Your task to perform on an android device: visit the assistant section in the google photos Image 0: 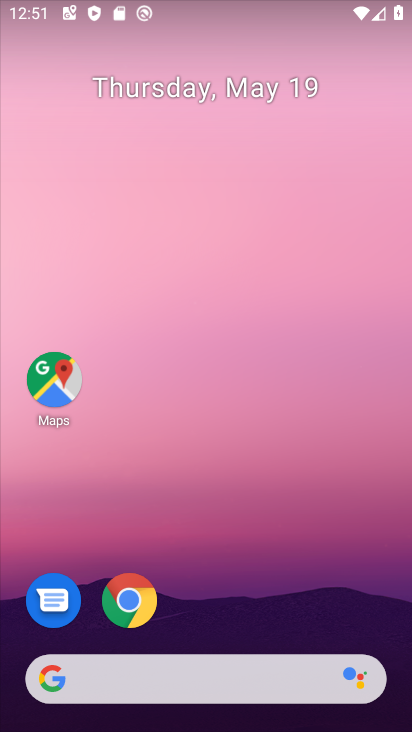
Step 0: drag from (229, 629) to (301, 186)
Your task to perform on an android device: visit the assistant section in the google photos Image 1: 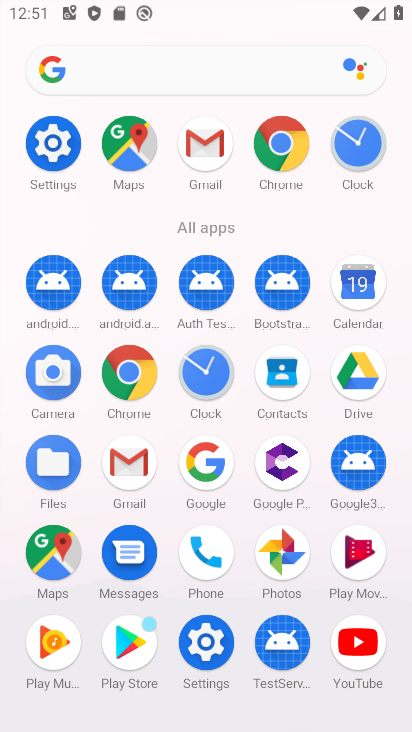
Step 1: click (285, 528)
Your task to perform on an android device: visit the assistant section in the google photos Image 2: 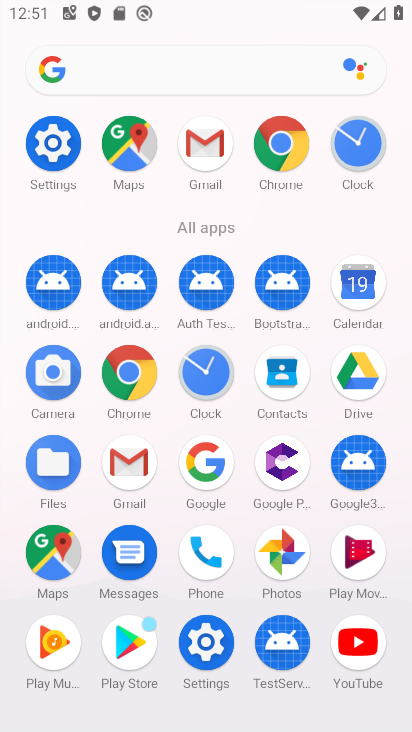
Step 2: click (285, 528)
Your task to perform on an android device: visit the assistant section in the google photos Image 3: 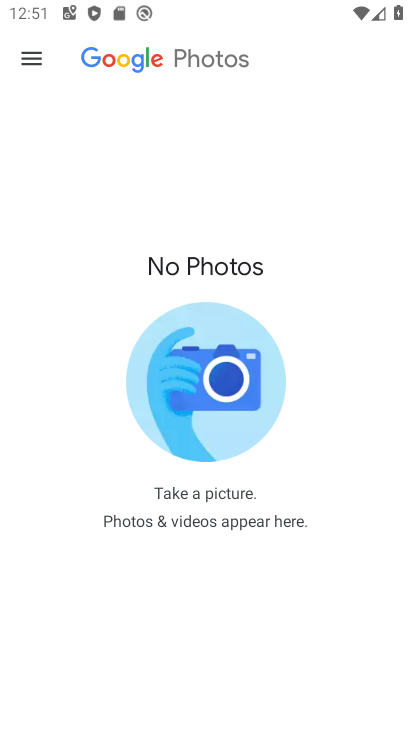
Step 3: click (32, 75)
Your task to perform on an android device: visit the assistant section in the google photos Image 4: 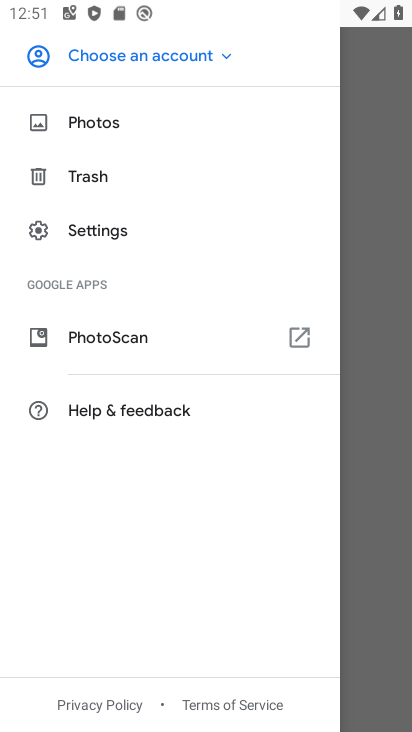
Step 4: click (82, 106)
Your task to perform on an android device: visit the assistant section in the google photos Image 5: 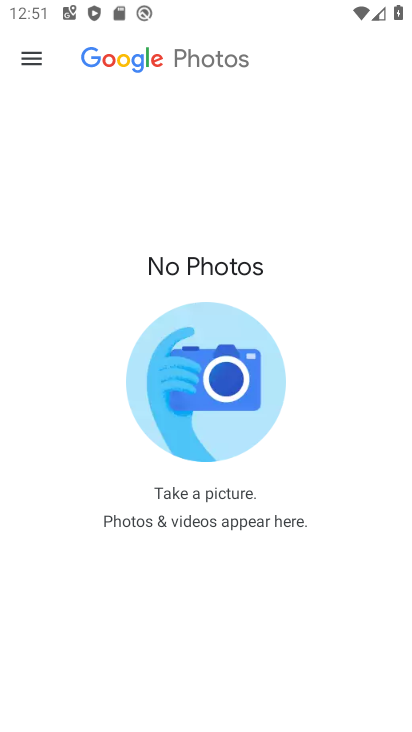
Step 5: click (45, 56)
Your task to perform on an android device: visit the assistant section in the google photos Image 6: 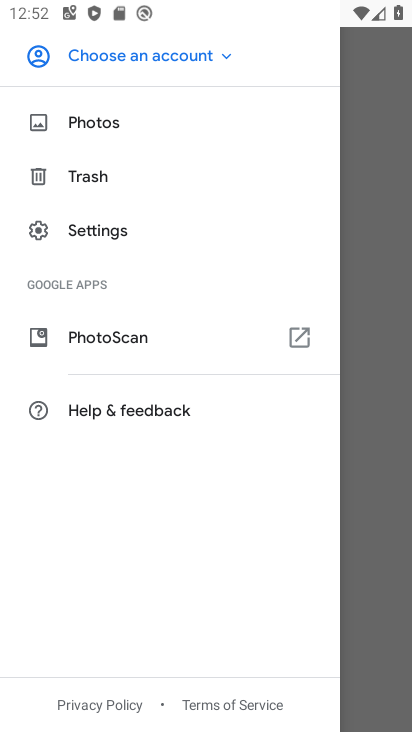
Step 6: task complete